Your task to perform on an android device: Open Youtube and go to "Your channel" Image 0: 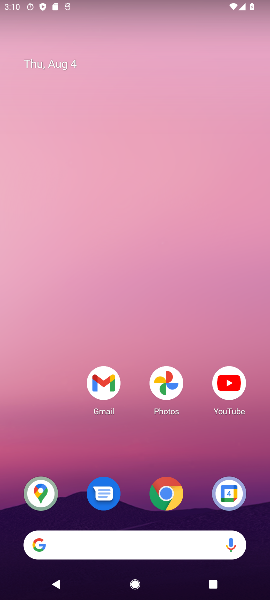
Step 0: click (234, 384)
Your task to perform on an android device: Open Youtube and go to "Your channel" Image 1: 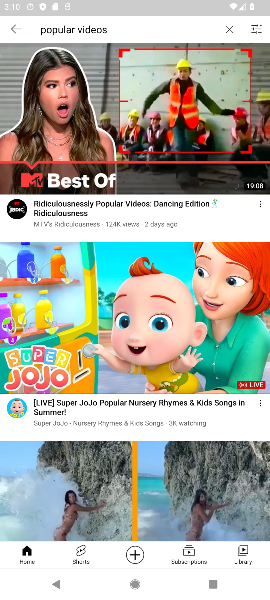
Step 1: click (6, 26)
Your task to perform on an android device: Open Youtube and go to "Your channel" Image 2: 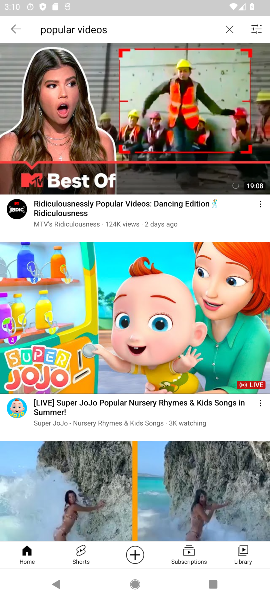
Step 2: click (13, 26)
Your task to perform on an android device: Open Youtube and go to "Your channel" Image 3: 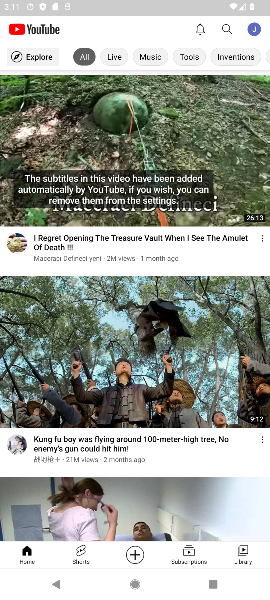
Step 3: click (258, 557)
Your task to perform on an android device: Open Youtube and go to "Your channel" Image 4: 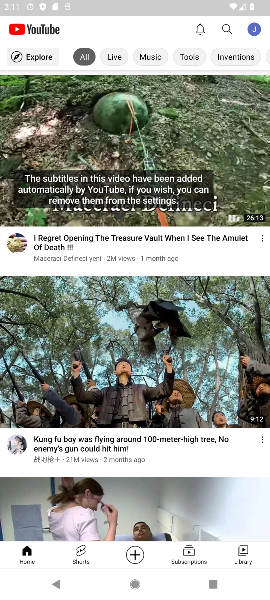
Step 4: click (246, 553)
Your task to perform on an android device: Open Youtube and go to "Your channel" Image 5: 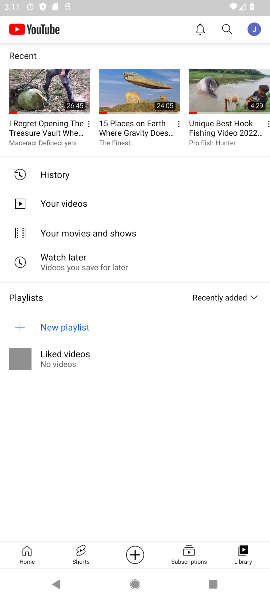
Step 5: click (58, 204)
Your task to perform on an android device: Open Youtube and go to "Your channel" Image 6: 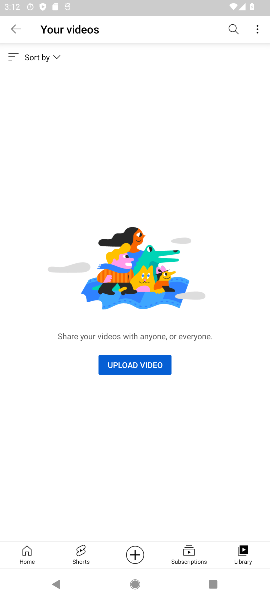
Step 6: task complete